Your task to perform on an android device: Open notification settings Image 0: 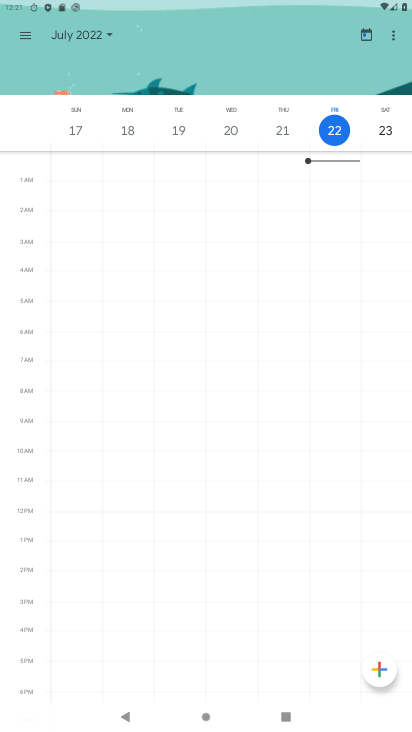
Step 0: press home button
Your task to perform on an android device: Open notification settings Image 1: 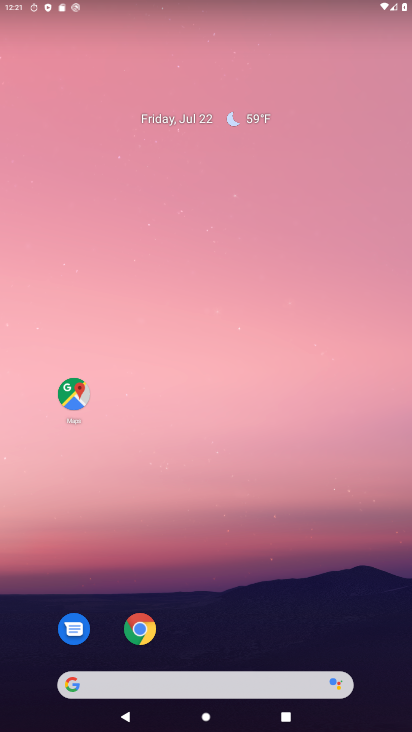
Step 1: drag from (249, 613) to (260, 88)
Your task to perform on an android device: Open notification settings Image 2: 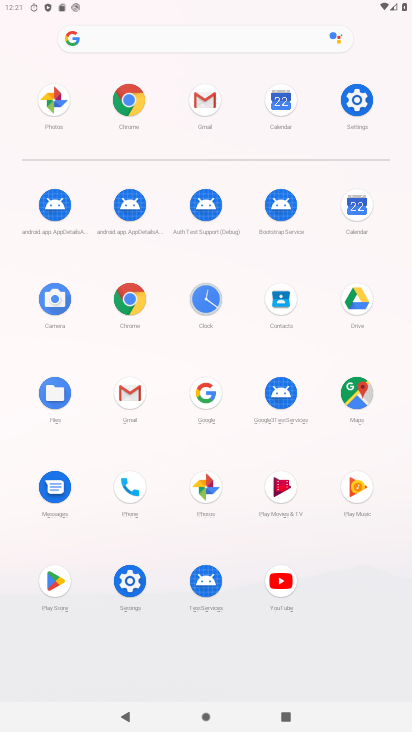
Step 2: click (367, 91)
Your task to perform on an android device: Open notification settings Image 3: 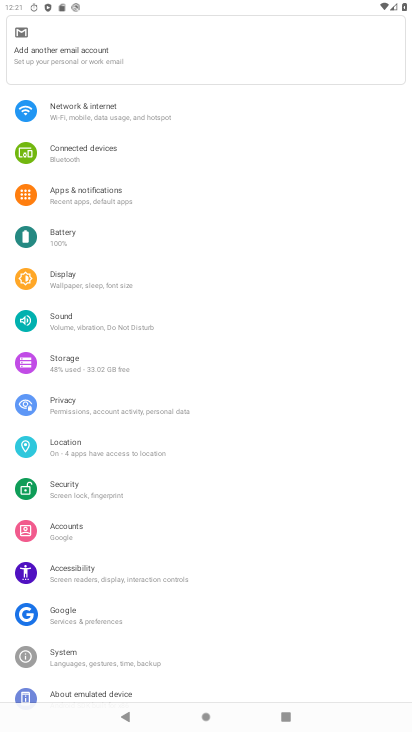
Step 3: click (82, 193)
Your task to perform on an android device: Open notification settings Image 4: 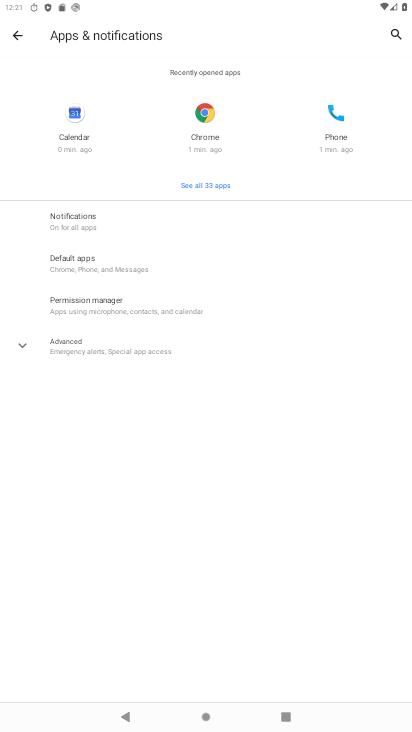
Step 4: task complete